Your task to perform on an android device: Open Yahoo.com Image 0: 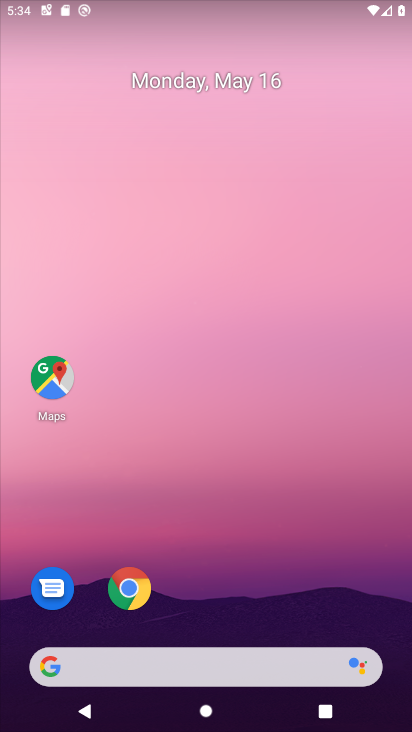
Step 0: click (140, 587)
Your task to perform on an android device: Open Yahoo.com Image 1: 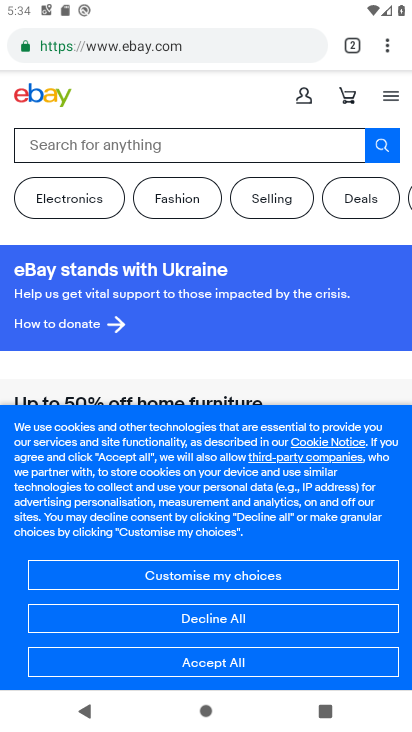
Step 1: click (359, 41)
Your task to perform on an android device: Open Yahoo.com Image 2: 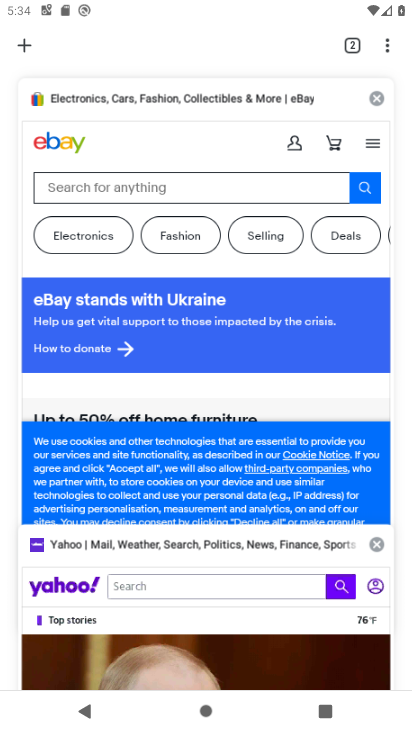
Step 2: click (21, 32)
Your task to perform on an android device: Open Yahoo.com Image 3: 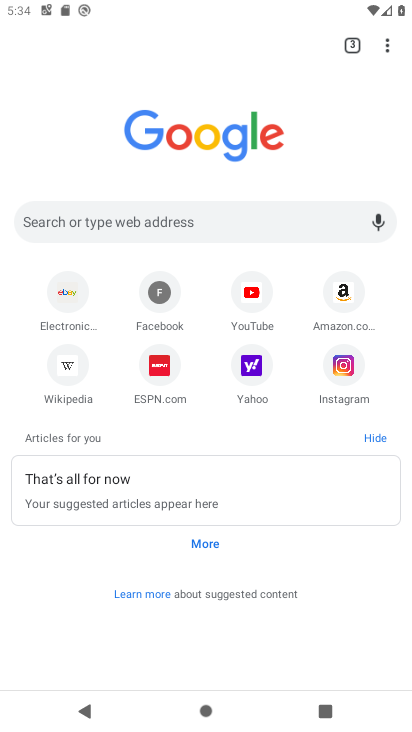
Step 3: click (259, 366)
Your task to perform on an android device: Open Yahoo.com Image 4: 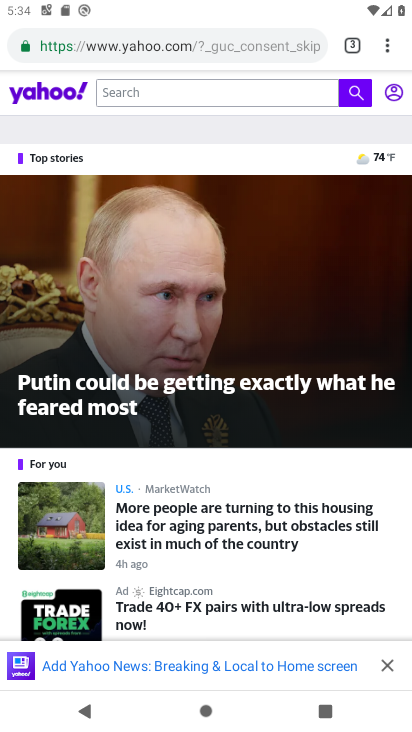
Step 4: task complete